Your task to perform on an android device: all mails in gmail Image 0: 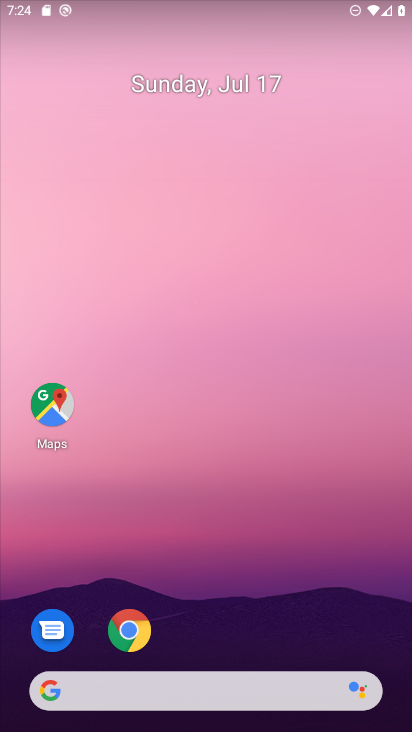
Step 0: drag from (361, 642) to (263, 5)
Your task to perform on an android device: all mails in gmail Image 1: 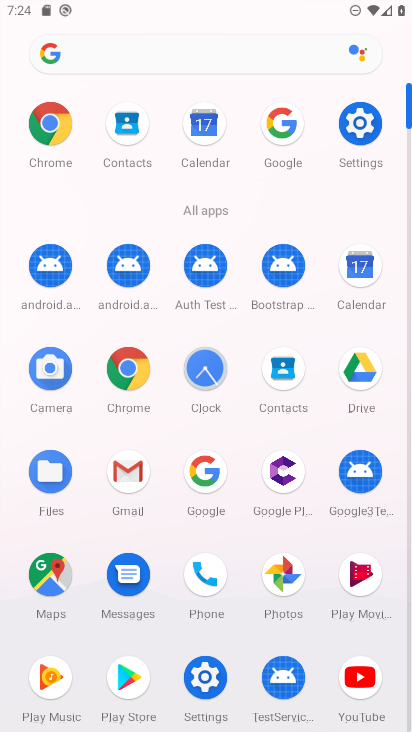
Step 1: click (129, 483)
Your task to perform on an android device: all mails in gmail Image 2: 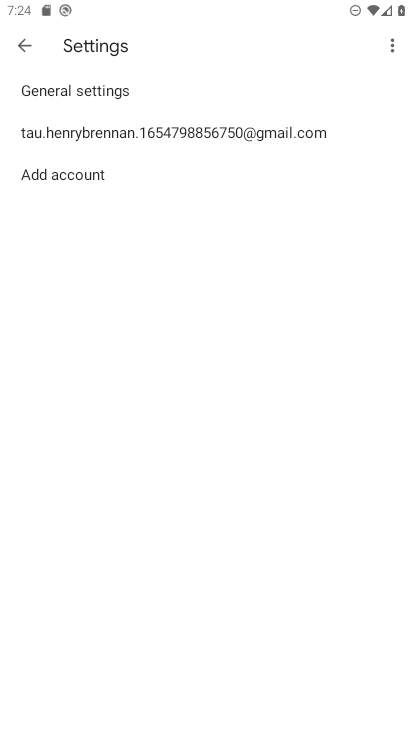
Step 2: press back button
Your task to perform on an android device: all mails in gmail Image 3: 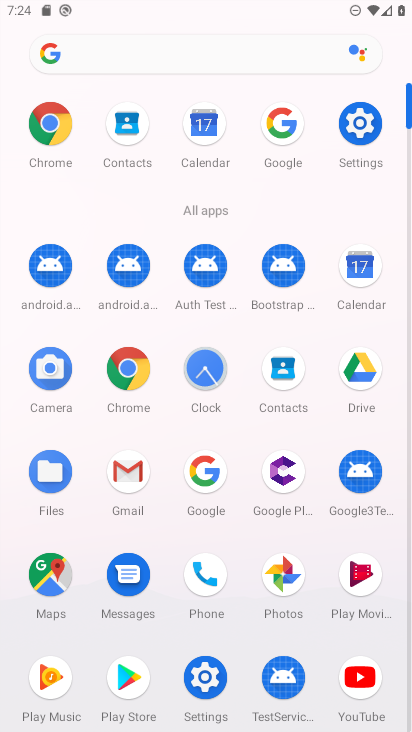
Step 3: click (118, 470)
Your task to perform on an android device: all mails in gmail Image 4: 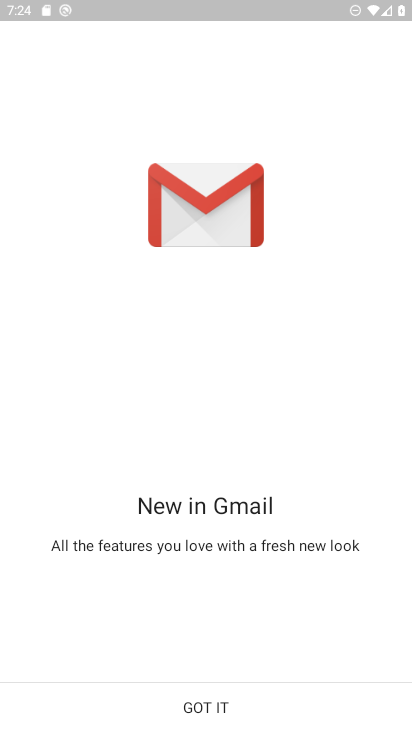
Step 4: click (205, 705)
Your task to perform on an android device: all mails in gmail Image 5: 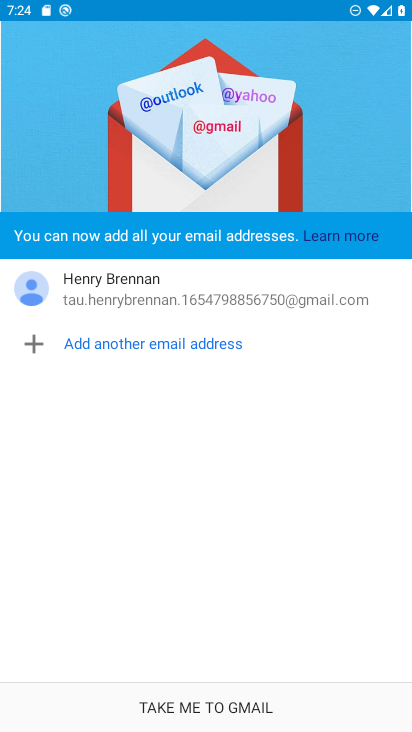
Step 5: click (205, 705)
Your task to perform on an android device: all mails in gmail Image 6: 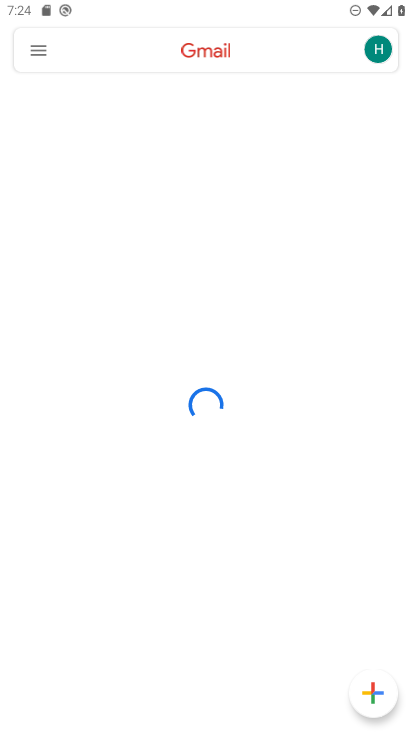
Step 6: click (30, 45)
Your task to perform on an android device: all mails in gmail Image 7: 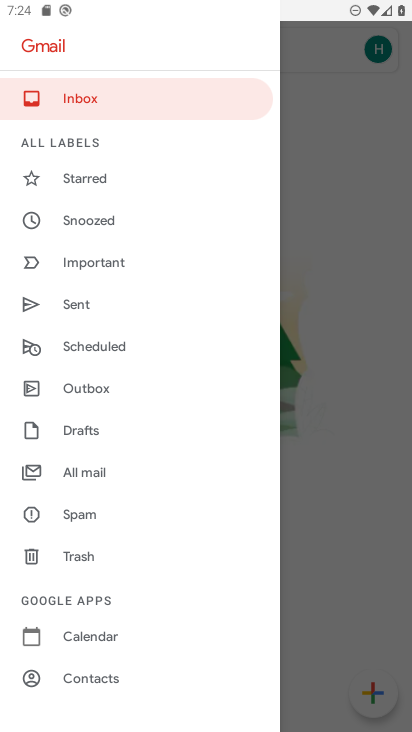
Step 7: click (89, 479)
Your task to perform on an android device: all mails in gmail Image 8: 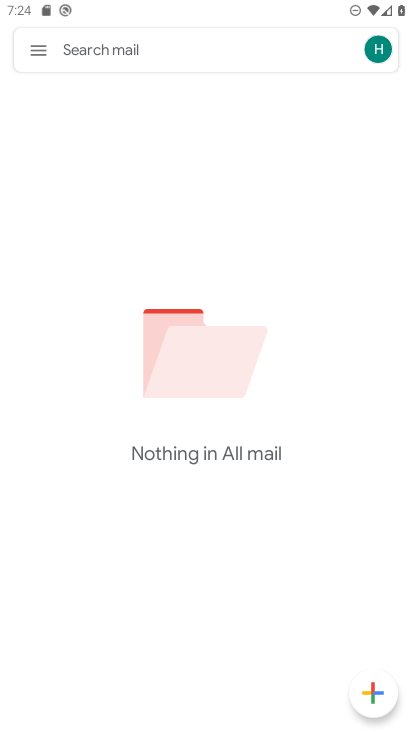
Step 8: task complete